Your task to perform on an android device: Open the map Image 0: 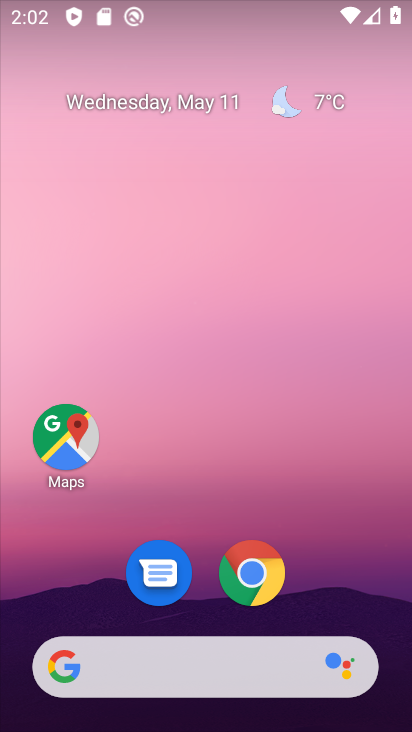
Step 0: click (67, 452)
Your task to perform on an android device: Open the map Image 1: 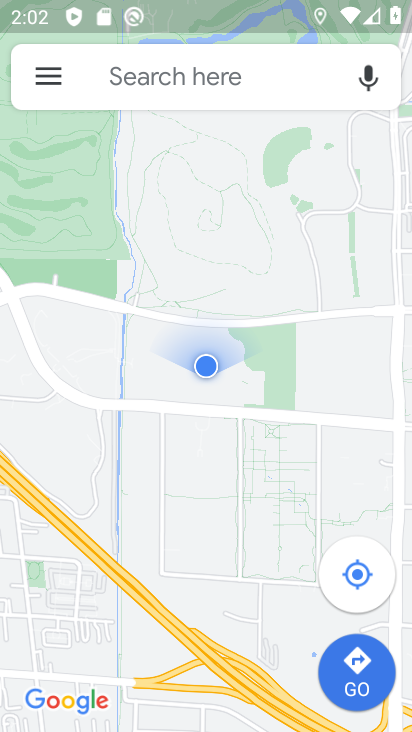
Step 1: task complete